Your task to perform on an android device: check the backup settings in the google photos Image 0: 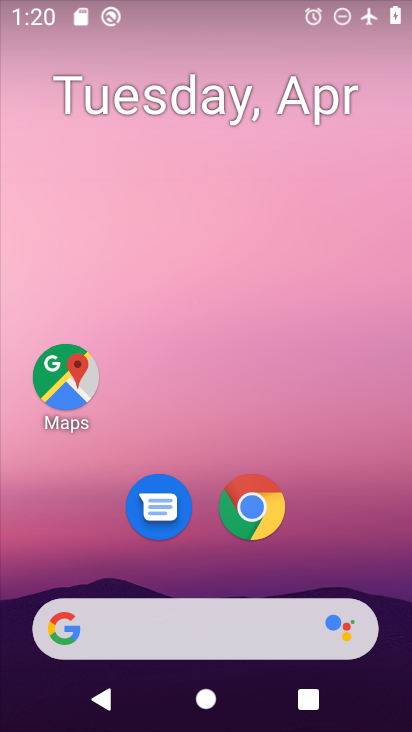
Step 0: drag from (353, 522) to (331, 55)
Your task to perform on an android device: check the backup settings in the google photos Image 1: 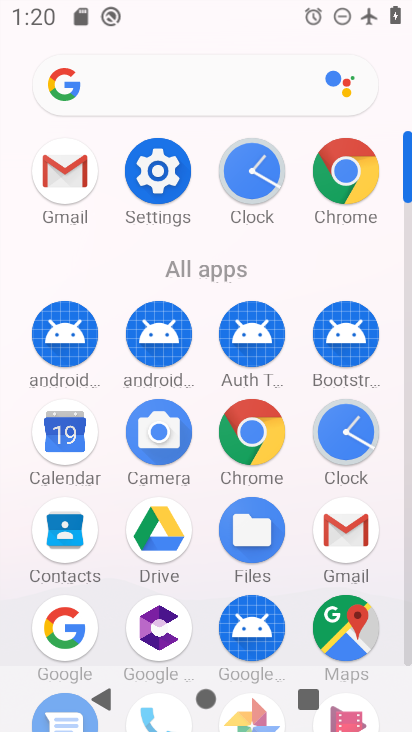
Step 1: click (409, 545)
Your task to perform on an android device: check the backup settings in the google photos Image 2: 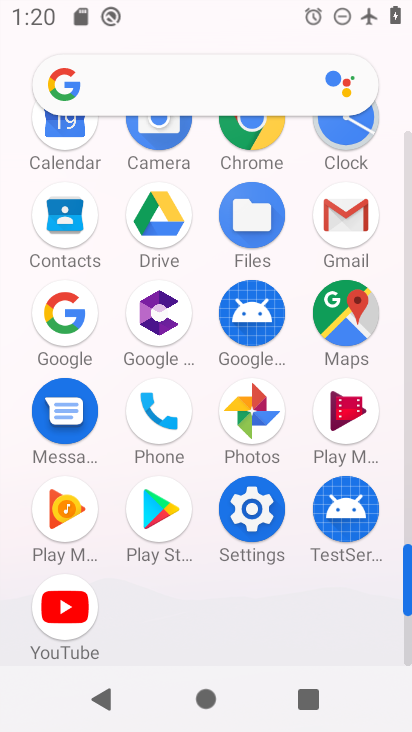
Step 2: click (240, 437)
Your task to perform on an android device: check the backup settings in the google photos Image 3: 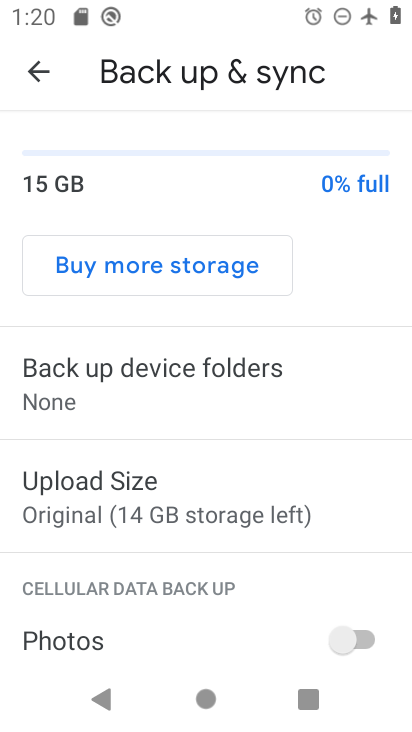
Step 3: click (200, 491)
Your task to perform on an android device: check the backup settings in the google photos Image 4: 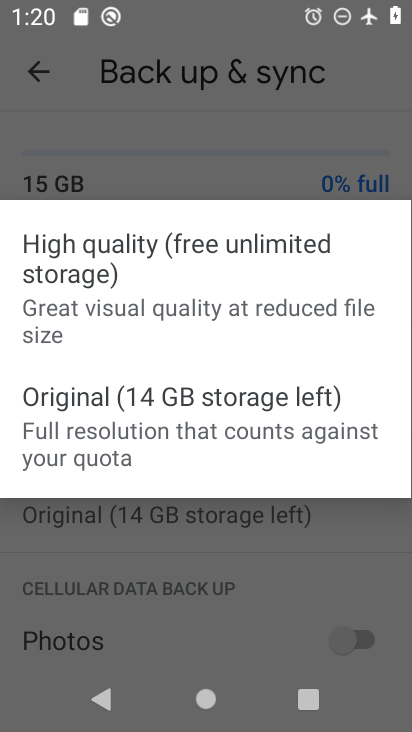
Step 4: click (92, 181)
Your task to perform on an android device: check the backup settings in the google photos Image 5: 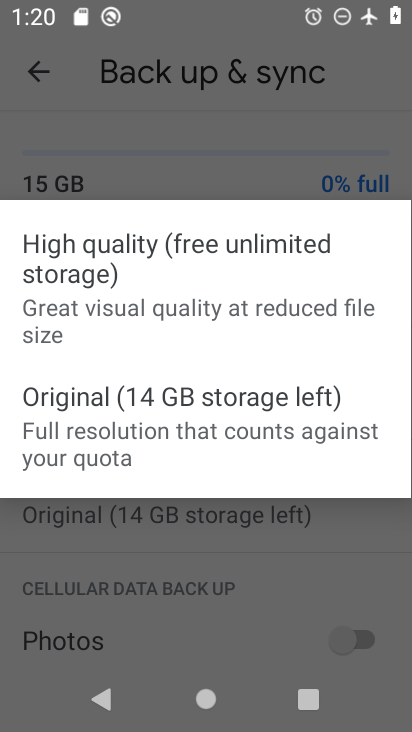
Step 5: click (254, 586)
Your task to perform on an android device: check the backup settings in the google photos Image 6: 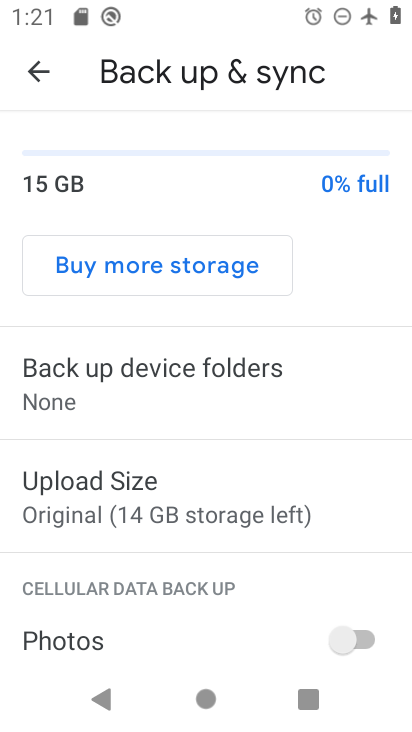
Step 6: drag from (207, 315) to (207, 566)
Your task to perform on an android device: check the backup settings in the google photos Image 7: 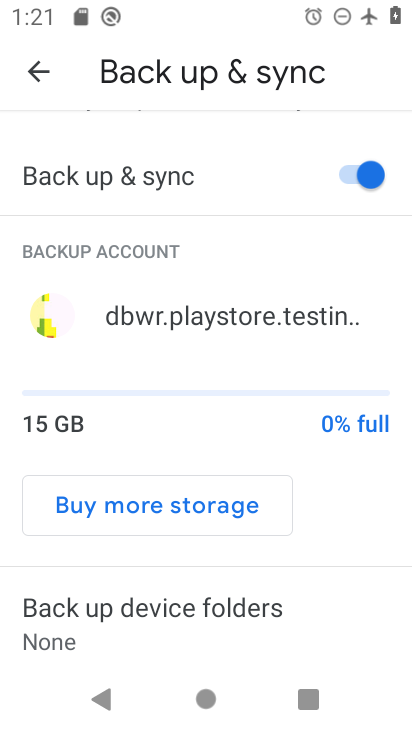
Step 7: click (192, 188)
Your task to perform on an android device: check the backup settings in the google photos Image 8: 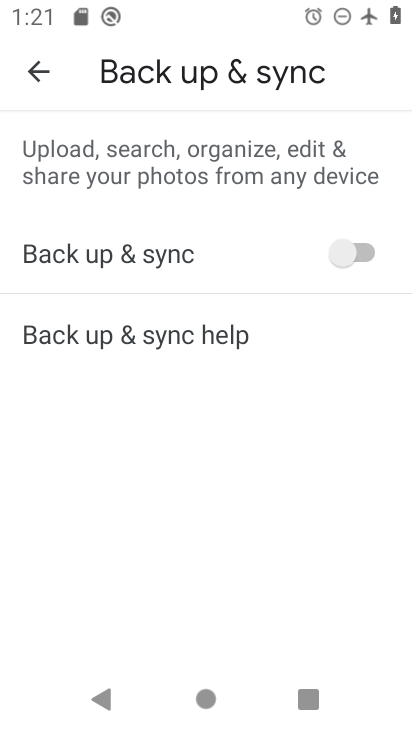
Step 8: task complete